Your task to perform on an android device: turn pop-ups off in chrome Image 0: 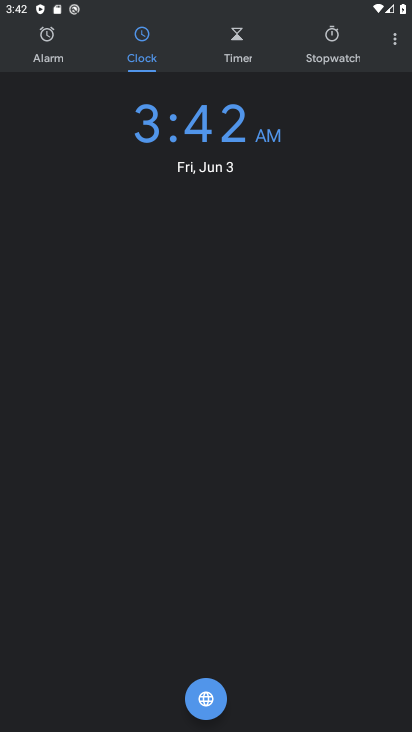
Step 0: press home button
Your task to perform on an android device: turn pop-ups off in chrome Image 1: 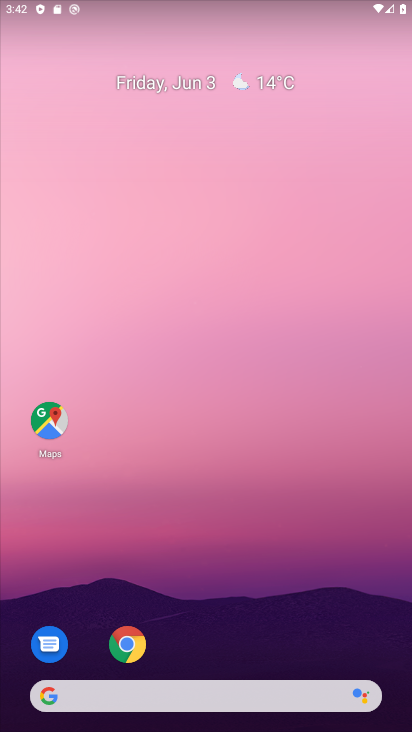
Step 1: click (122, 651)
Your task to perform on an android device: turn pop-ups off in chrome Image 2: 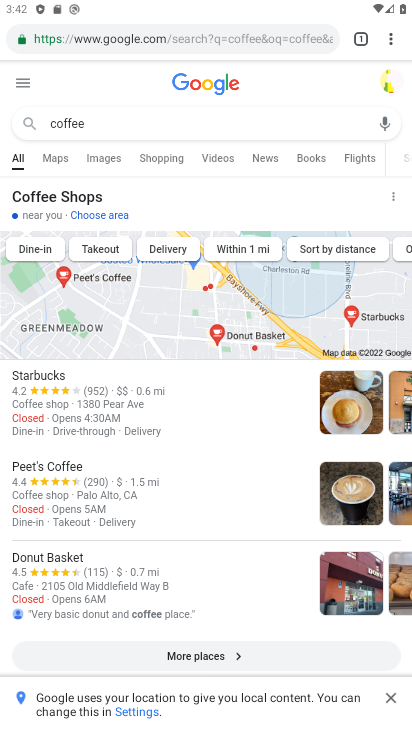
Step 2: click (392, 48)
Your task to perform on an android device: turn pop-ups off in chrome Image 3: 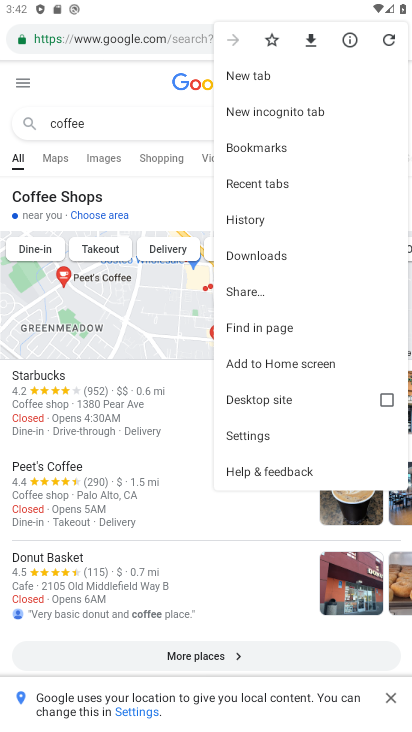
Step 3: click (291, 432)
Your task to perform on an android device: turn pop-ups off in chrome Image 4: 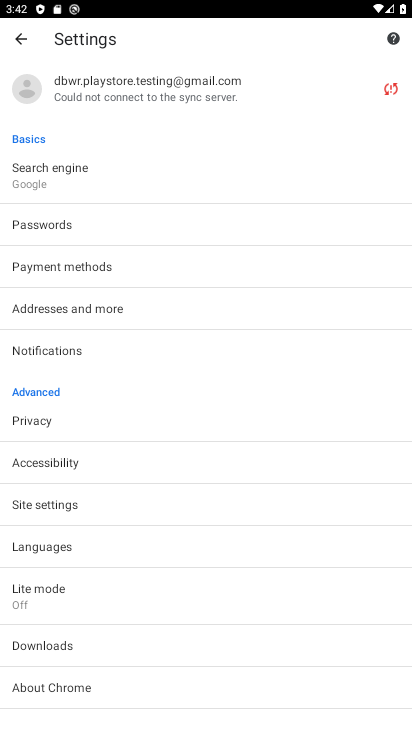
Step 4: click (107, 497)
Your task to perform on an android device: turn pop-ups off in chrome Image 5: 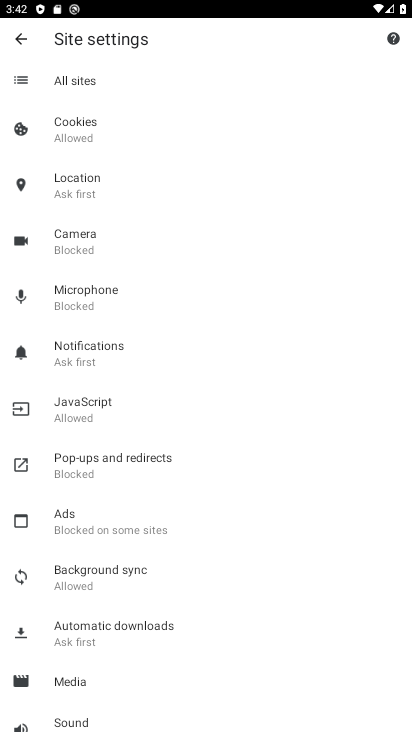
Step 5: click (105, 471)
Your task to perform on an android device: turn pop-ups off in chrome Image 6: 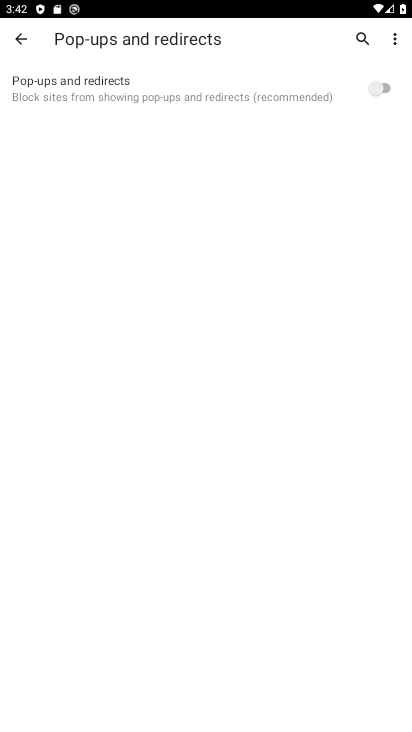
Step 6: task complete